Your task to perform on an android device: Open Yahoo.com Image 0: 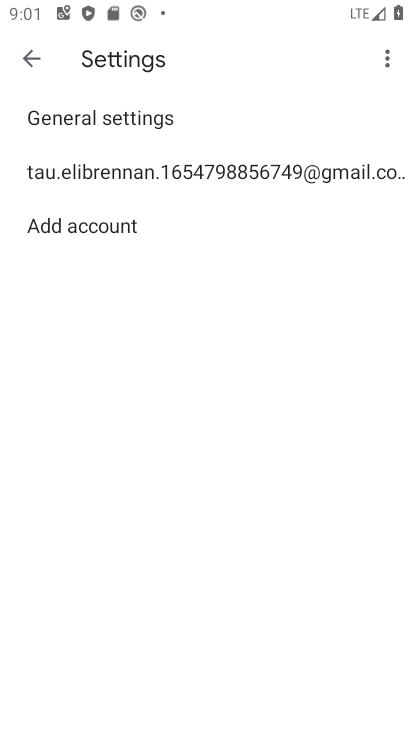
Step 0: press home button
Your task to perform on an android device: Open Yahoo.com Image 1: 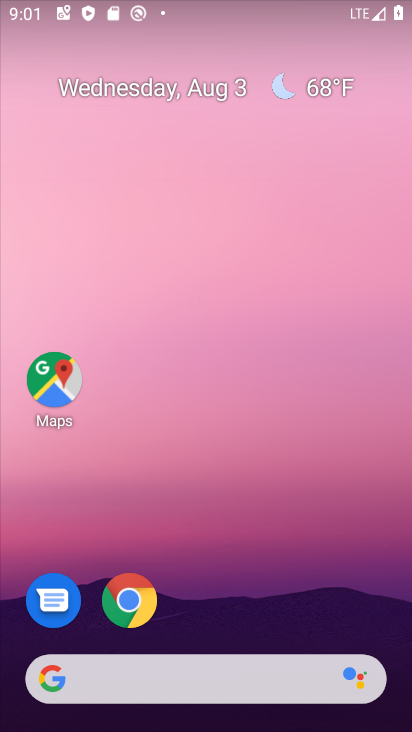
Step 1: drag from (176, 629) to (270, 4)
Your task to perform on an android device: Open Yahoo.com Image 2: 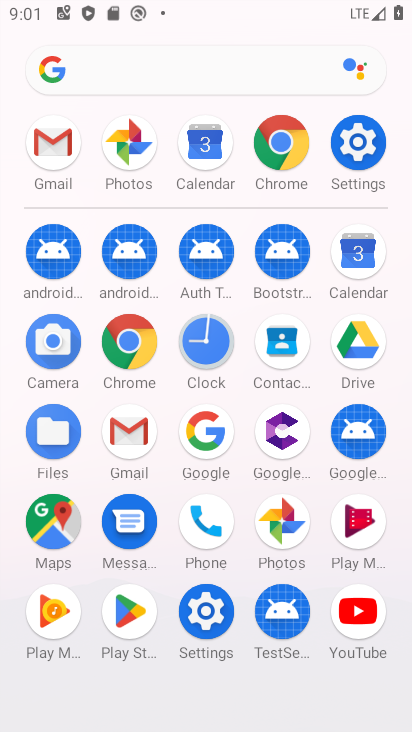
Step 2: click (117, 349)
Your task to perform on an android device: Open Yahoo.com Image 3: 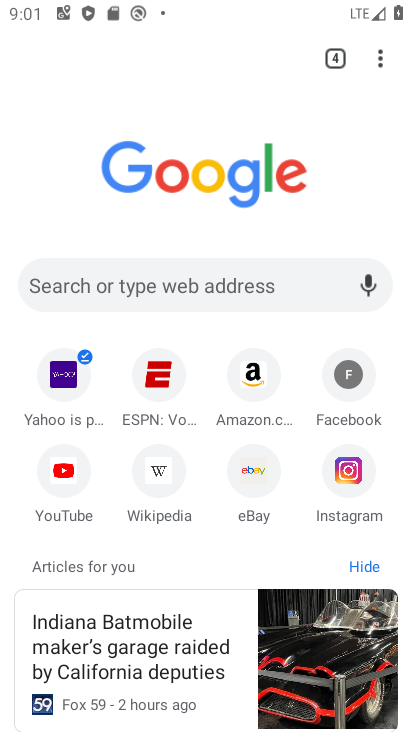
Step 3: click (183, 291)
Your task to perform on an android device: Open Yahoo.com Image 4: 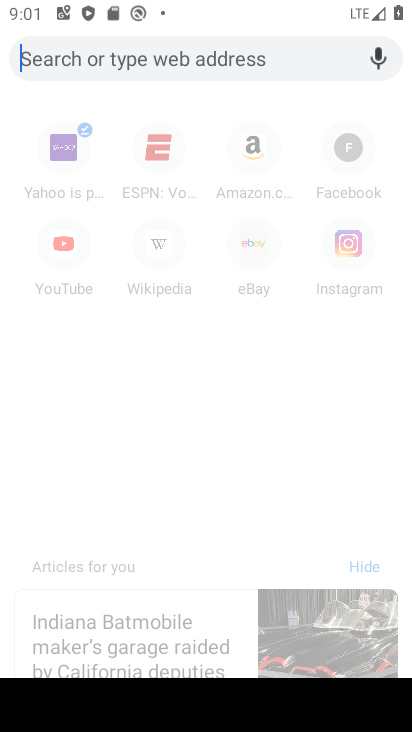
Step 4: type "yahoo.com"
Your task to perform on an android device: Open Yahoo.com Image 5: 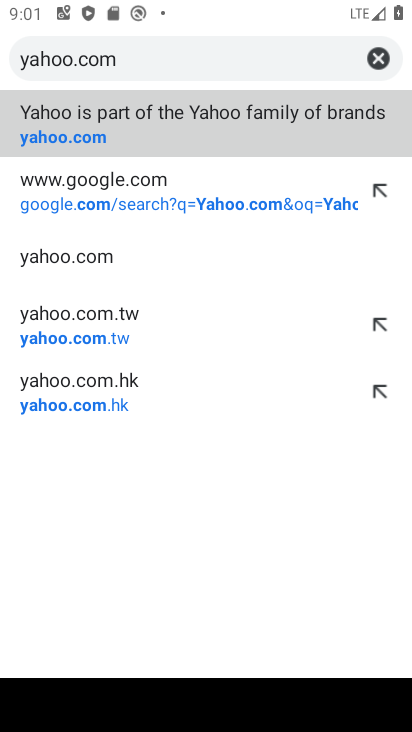
Step 5: click (123, 134)
Your task to perform on an android device: Open Yahoo.com Image 6: 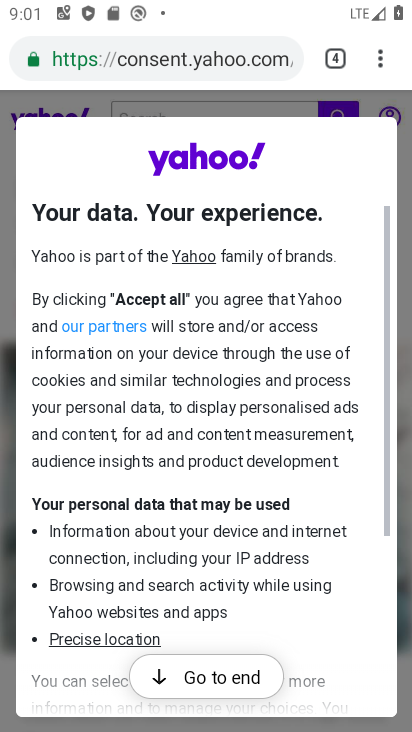
Step 6: task complete